Your task to perform on an android device: Open Chrome and go to the settings page Image 0: 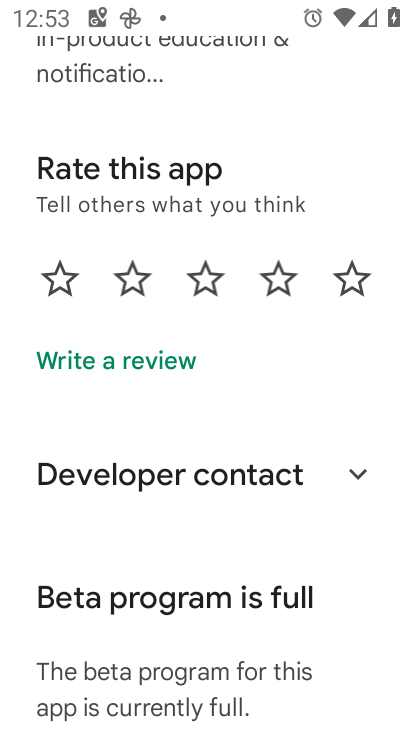
Step 0: press home button
Your task to perform on an android device: Open Chrome and go to the settings page Image 1: 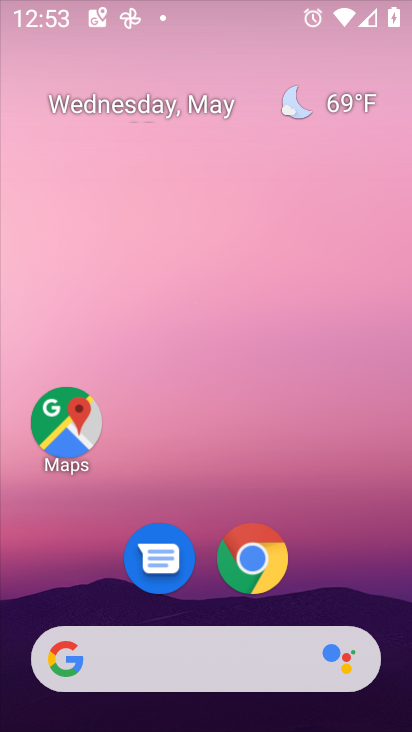
Step 1: drag from (390, 522) to (350, 0)
Your task to perform on an android device: Open Chrome and go to the settings page Image 2: 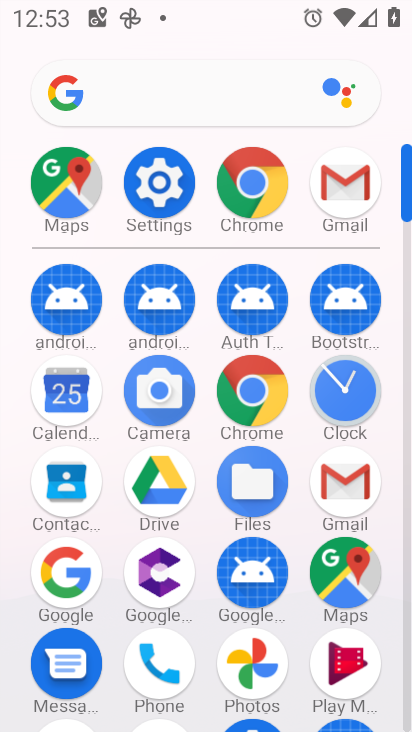
Step 2: click (257, 182)
Your task to perform on an android device: Open Chrome and go to the settings page Image 3: 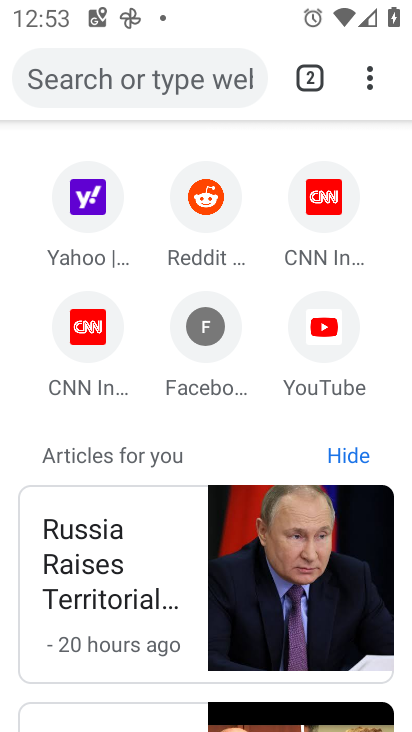
Step 3: click (366, 76)
Your task to perform on an android device: Open Chrome and go to the settings page Image 4: 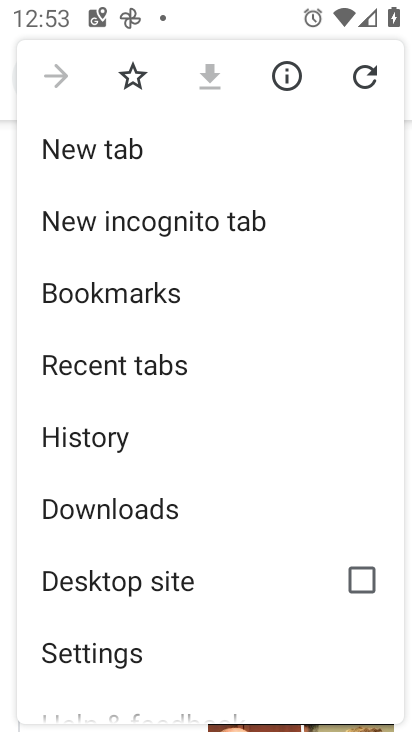
Step 4: click (145, 658)
Your task to perform on an android device: Open Chrome and go to the settings page Image 5: 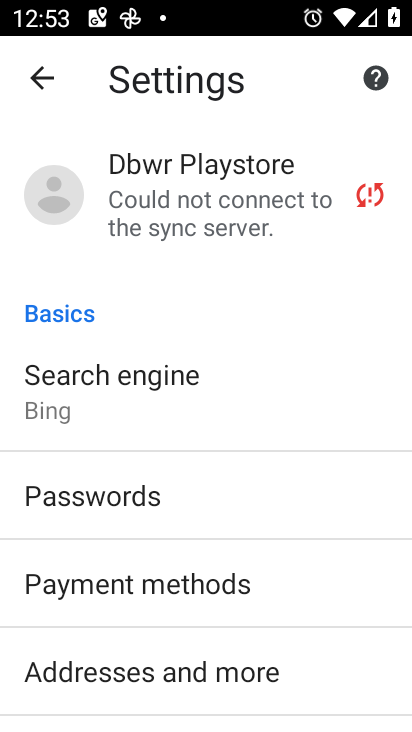
Step 5: task complete